Your task to perform on an android device: toggle location history Image 0: 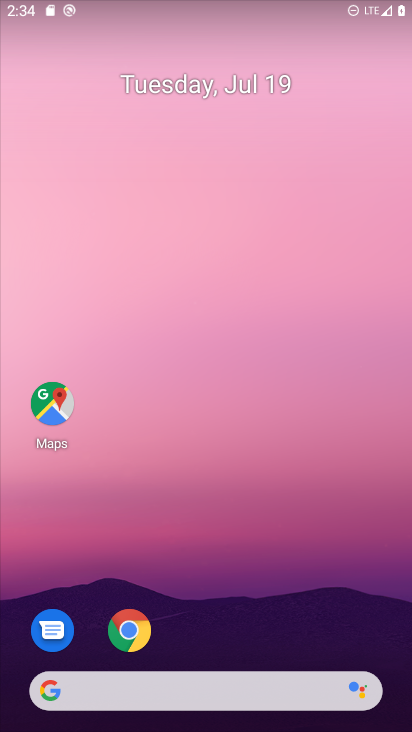
Step 0: drag from (396, 639) to (356, 119)
Your task to perform on an android device: toggle location history Image 1: 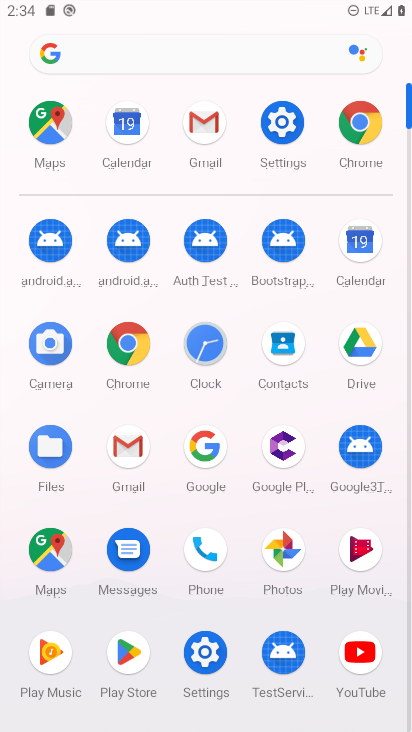
Step 1: click (50, 546)
Your task to perform on an android device: toggle location history Image 2: 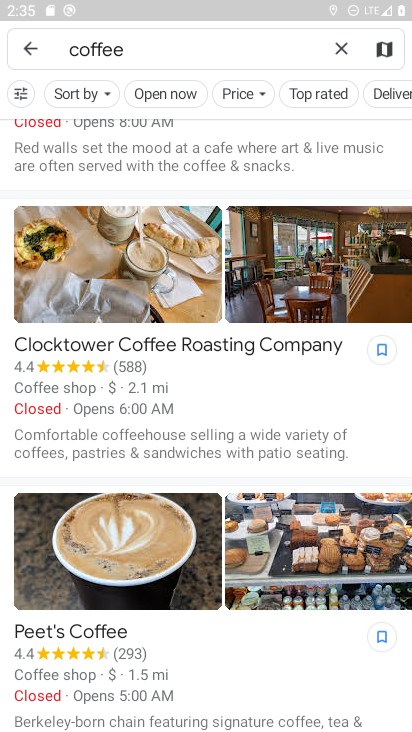
Step 2: click (342, 47)
Your task to perform on an android device: toggle location history Image 3: 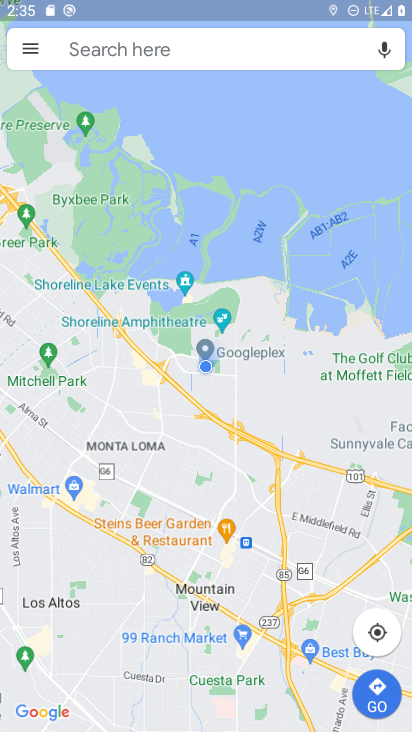
Step 3: click (30, 45)
Your task to perform on an android device: toggle location history Image 4: 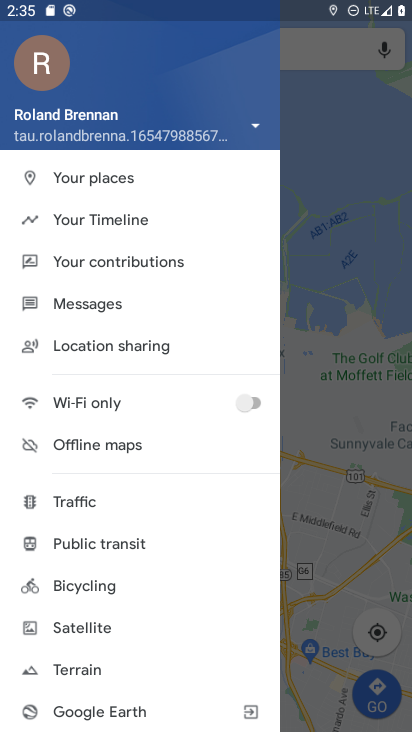
Step 4: drag from (128, 644) to (172, 222)
Your task to perform on an android device: toggle location history Image 5: 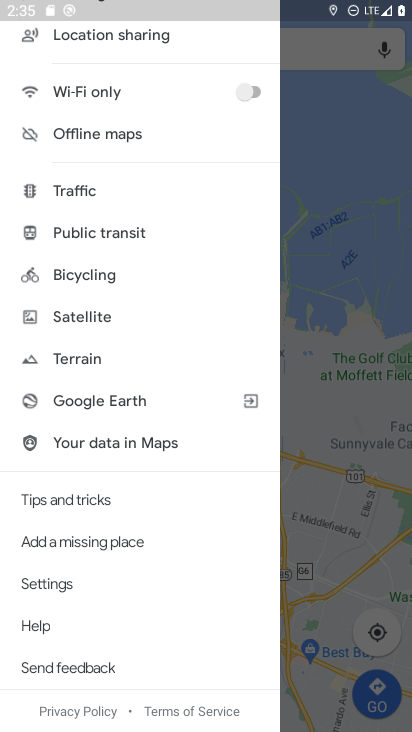
Step 5: click (50, 584)
Your task to perform on an android device: toggle location history Image 6: 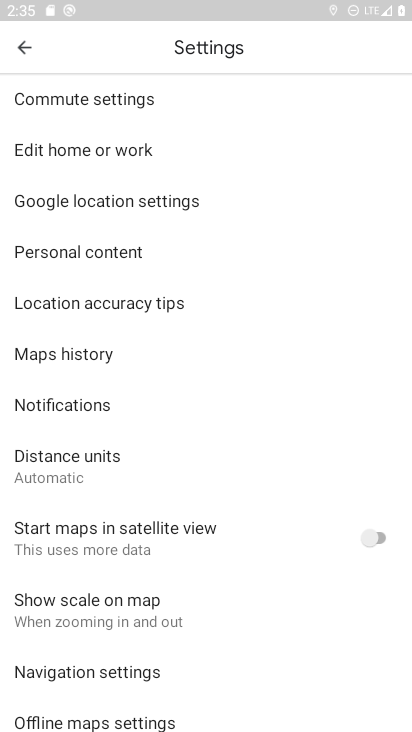
Step 6: click (88, 256)
Your task to perform on an android device: toggle location history Image 7: 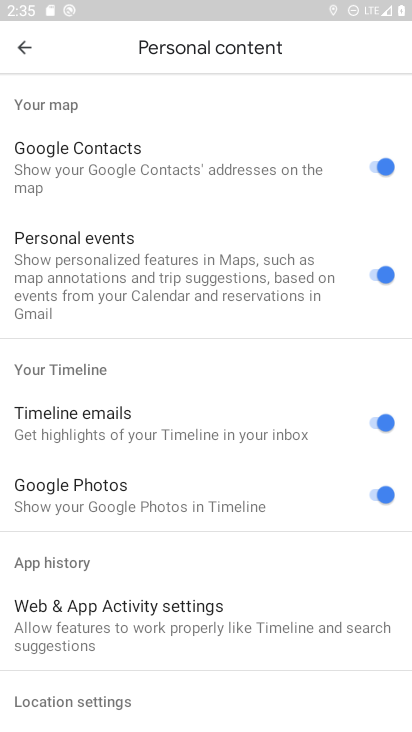
Step 7: drag from (241, 624) to (228, 219)
Your task to perform on an android device: toggle location history Image 8: 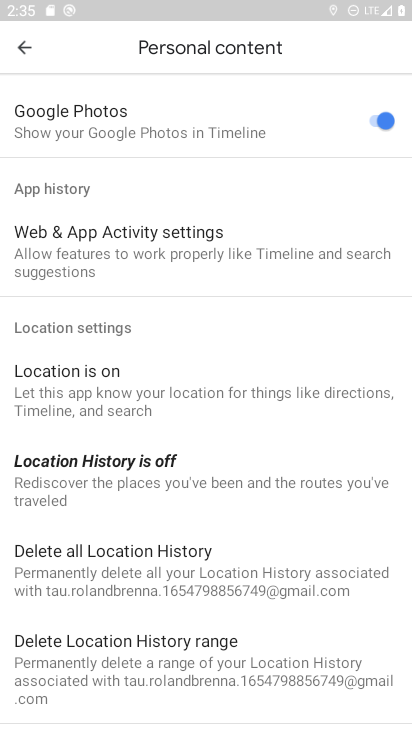
Step 8: click (71, 464)
Your task to perform on an android device: toggle location history Image 9: 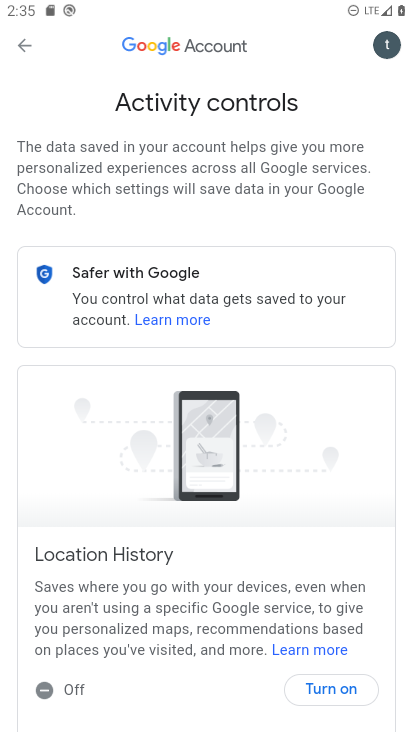
Step 9: click (329, 680)
Your task to perform on an android device: toggle location history Image 10: 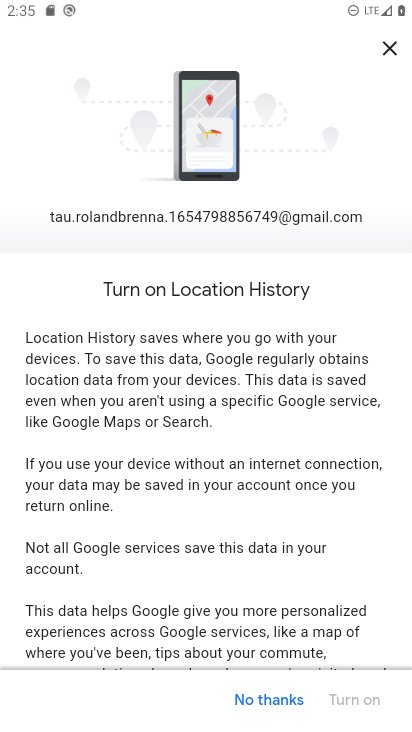
Step 10: drag from (302, 577) to (283, 181)
Your task to perform on an android device: toggle location history Image 11: 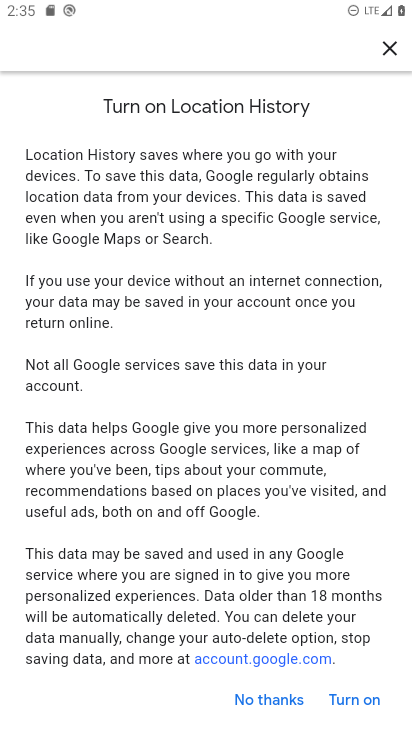
Step 11: click (346, 693)
Your task to perform on an android device: toggle location history Image 12: 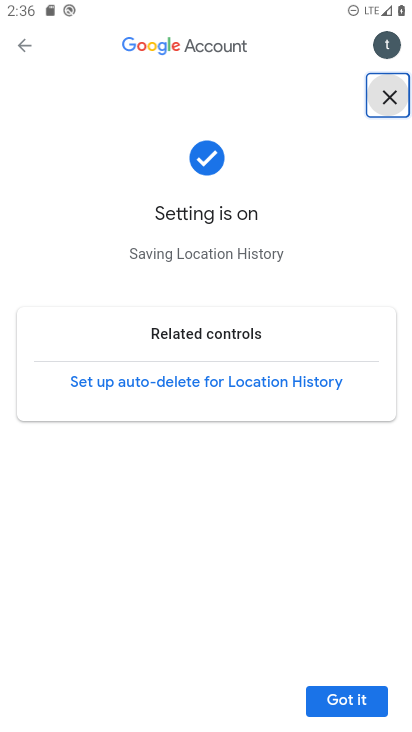
Step 12: click (348, 700)
Your task to perform on an android device: toggle location history Image 13: 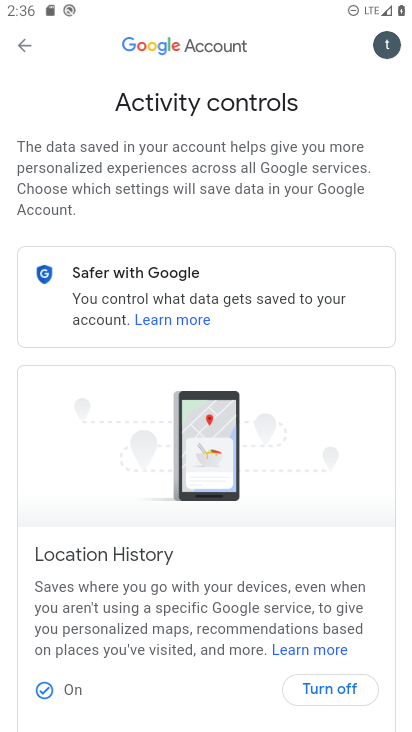
Step 13: task complete